Your task to perform on an android device: check data usage Image 0: 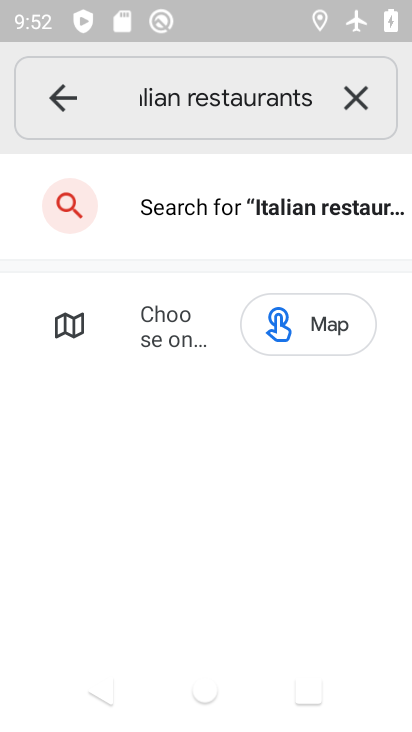
Step 0: press home button
Your task to perform on an android device: check data usage Image 1: 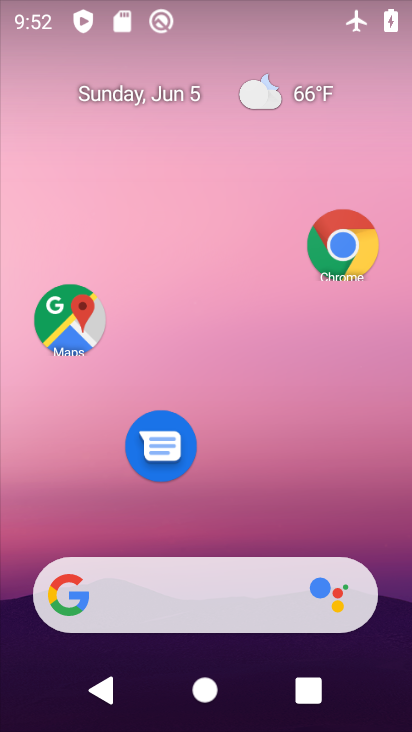
Step 1: drag from (217, 520) to (246, 183)
Your task to perform on an android device: check data usage Image 2: 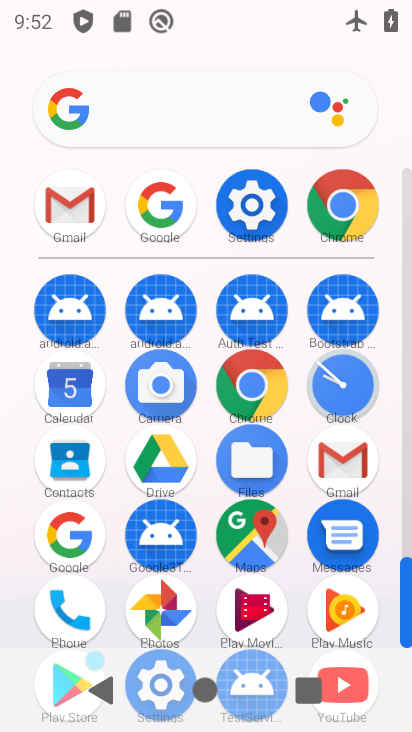
Step 2: click (247, 181)
Your task to perform on an android device: check data usage Image 3: 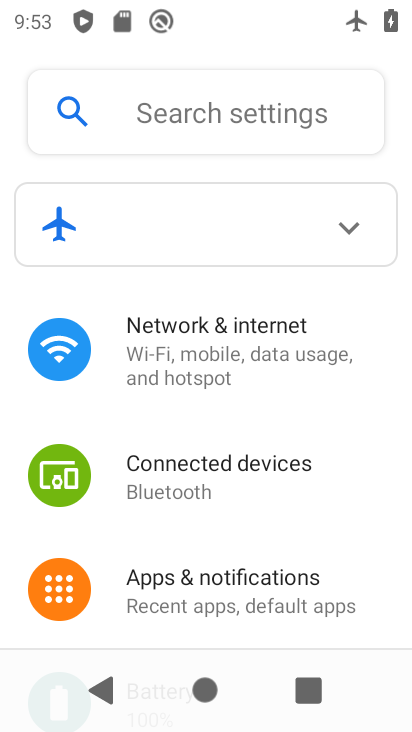
Step 3: click (244, 380)
Your task to perform on an android device: check data usage Image 4: 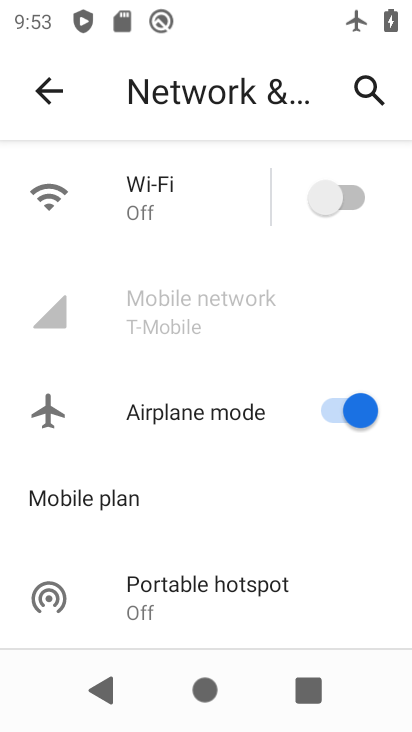
Step 4: click (239, 310)
Your task to perform on an android device: check data usage Image 5: 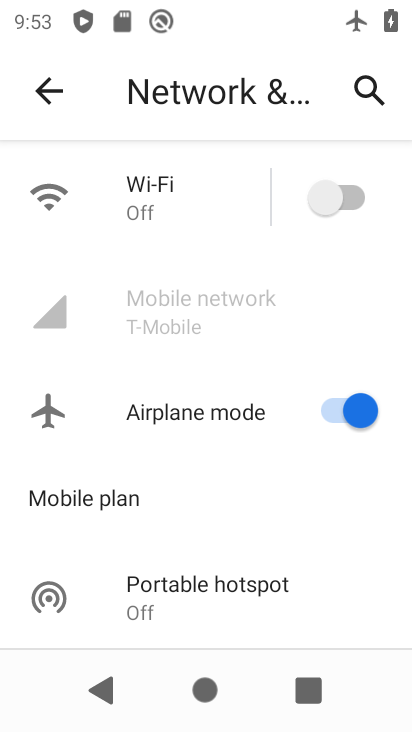
Step 5: task complete